Your task to perform on an android device: Is it going to rain this weekend? Image 0: 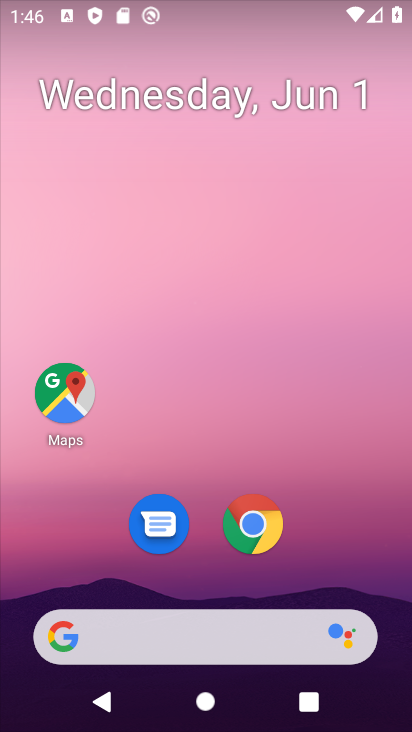
Step 0: click (218, 633)
Your task to perform on an android device: Is it going to rain this weekend? Image 1: 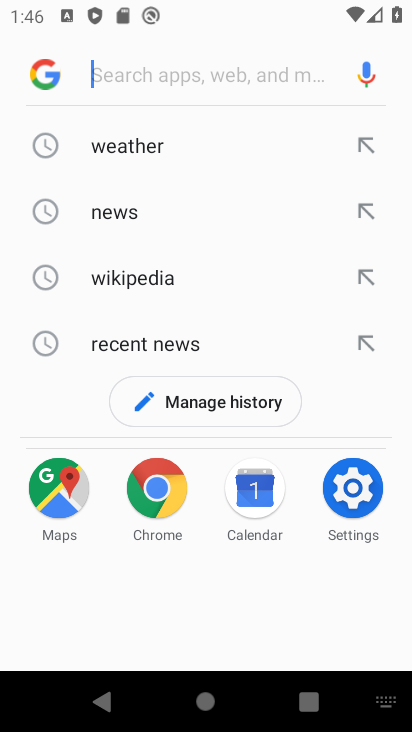
Step 1: click (124, 148)
Your task to perform on an android device: Is it going to rain this weekend? Image 2: 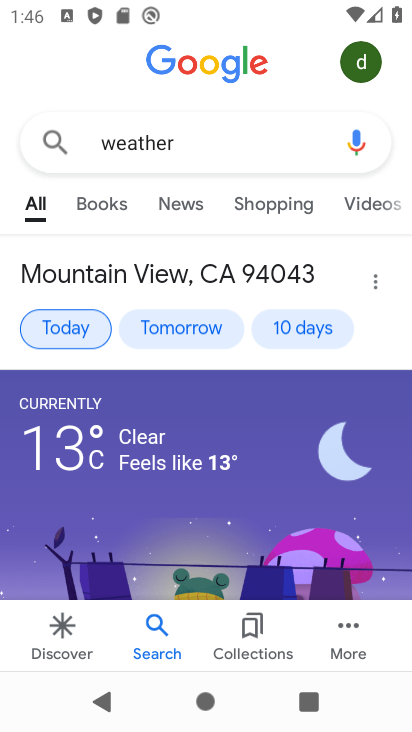
Step 2: click (59, 318)
Your task to perform on an android device: Is it going to rain this weekend? Image 3: 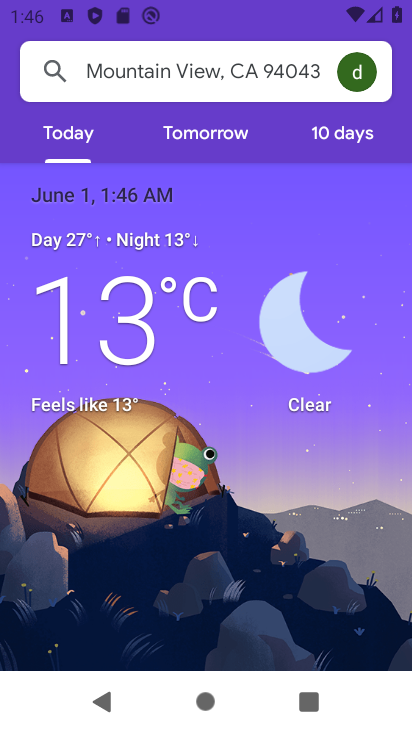
Step 3: click (363, 133)
Your task to perform on an android device: Is it going to rain this weekend? Image 4: 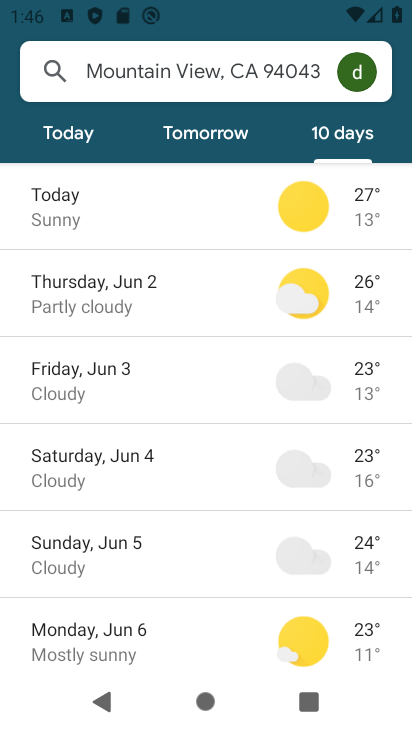
Step 4: click (205, 462)
Your task to perform on an android device: Is it going to rain this weekend? Image 5: 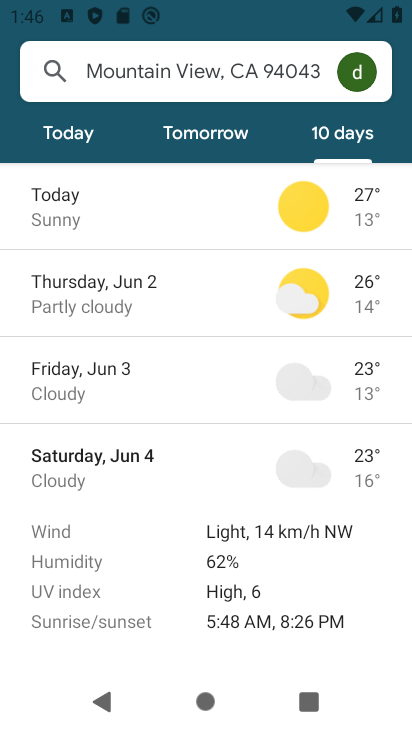
Step 5: task complete